Your task to perform on an android device: turn off picture-in-picture Image 0: 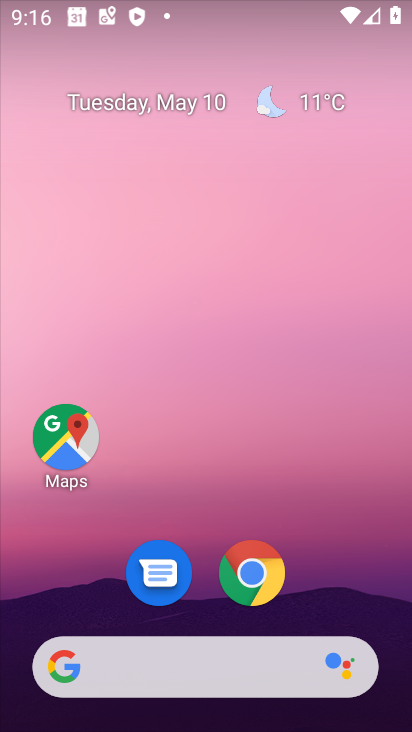
Step 0: click (254, 571)
Your task to perform on an android device: turn off picture-in-picture Image 1: 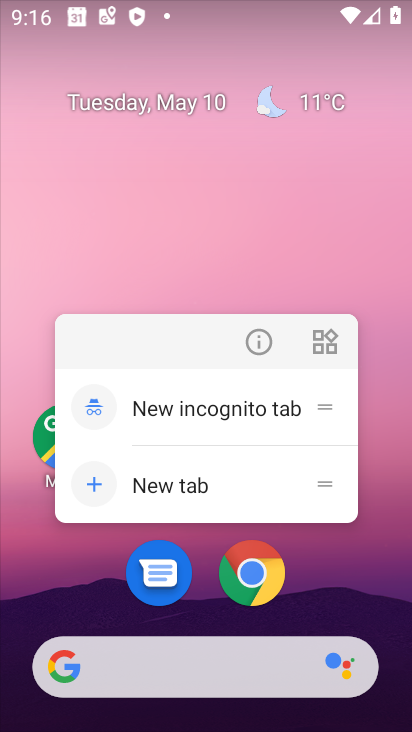
Step 1: click (257, 350)
Your task to perform on an android device: turn off picture-in-picture Image 2: 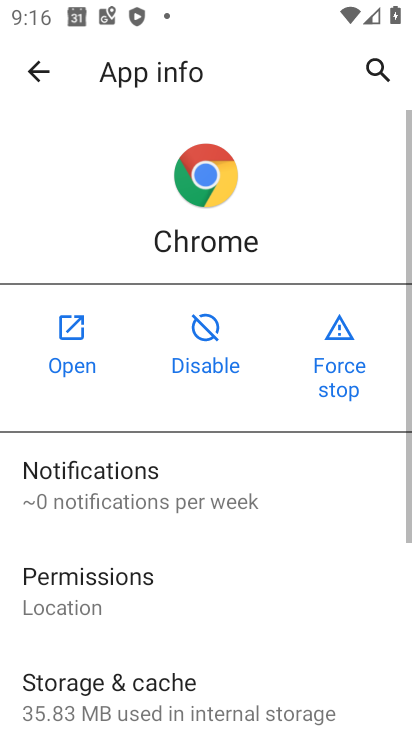
Step 2: drag from (239, 638) to (234, 76)
Your task to perform on an android device: turn off picture-in-picture Image 3: 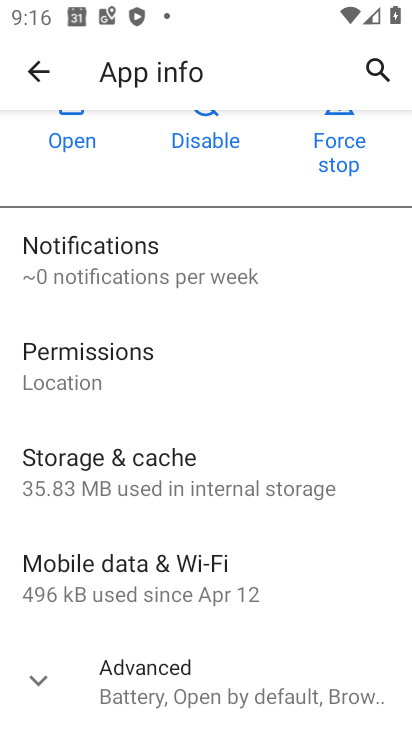
Step 3: click (36, 691)
Your task to perform on an android device: turn off picture-in-picture Image 4: 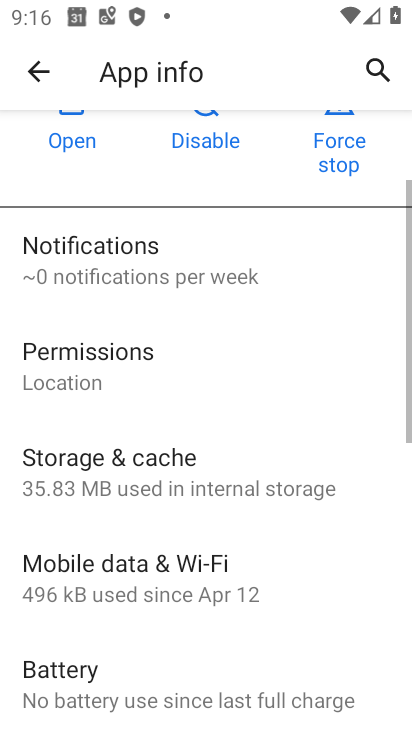
Step 4: drag from (175, 677) to (177, 171)
Your task to perform on an android device: turn off picture-in-picture Image 5: 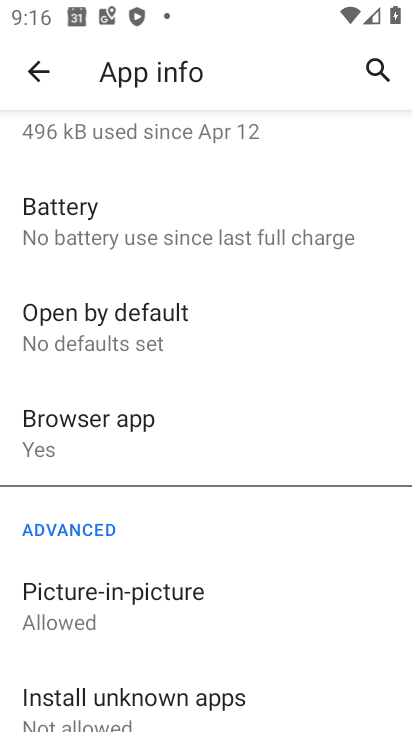
Step 5: click (112, 586)
Your task to perform on an android device: turn off picture-in-picture Image 6: 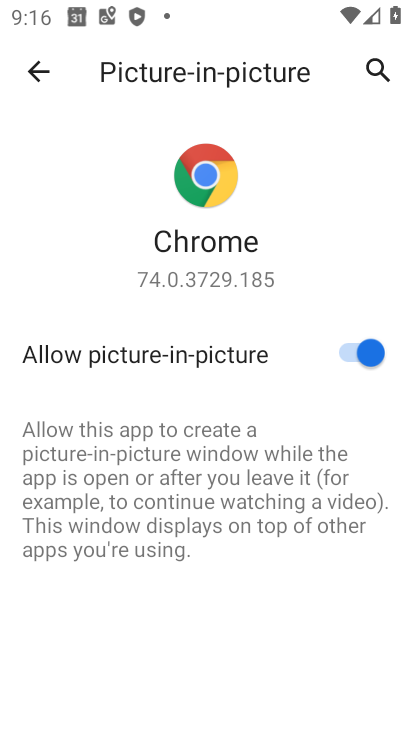
Step 6: click (355, 356)
Your task to perform on an android device: turn off picture-in-picture Image 7: 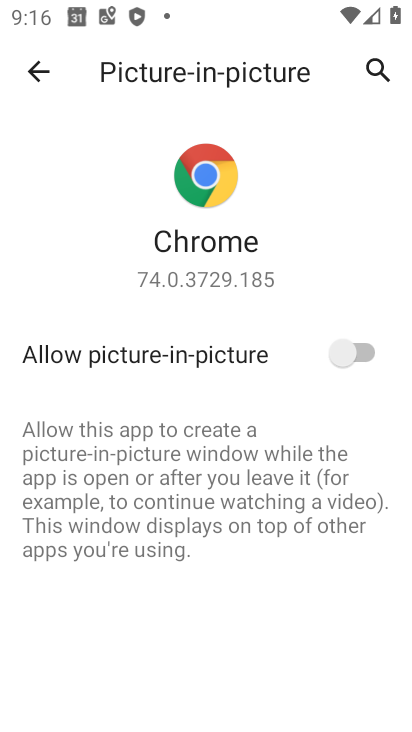
Step 7: task complete